Your task to perform on an android device: Show me productivity apps on the Play Store Image 0: 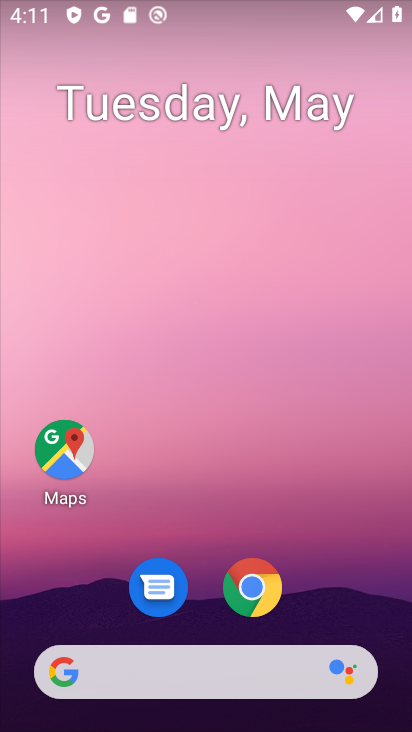
Step 0: drag from (381, 579) to (380, 272)
Your task to perform on an android device: Show me productivity apps on the Play Store Image 1: 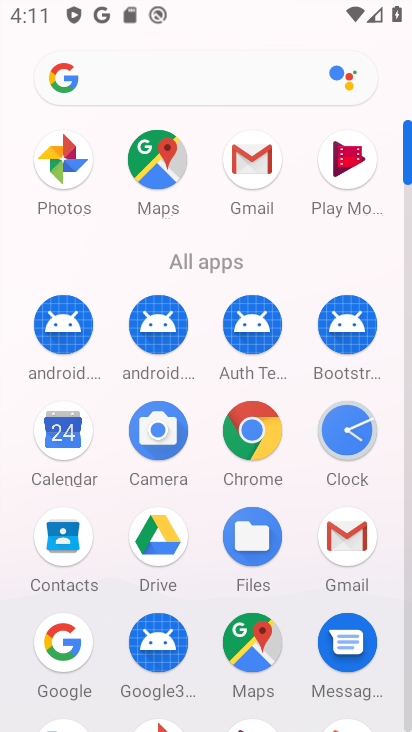
Step 1: drag from (389, 602) to (383, 346)
Your task to perform on an android device: Show me productivity apps on the Play Store Image 2: 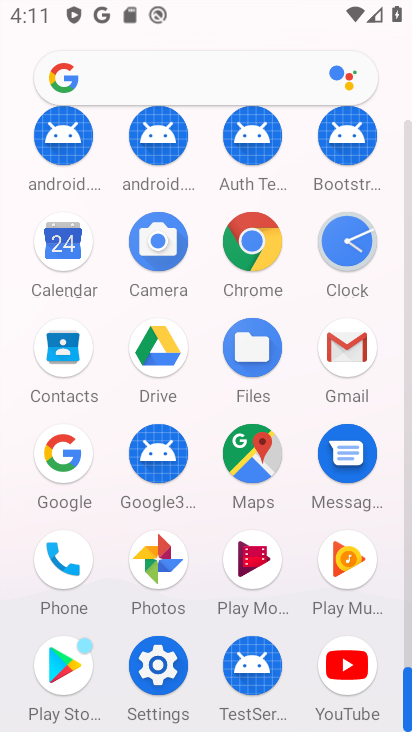
Step 2: click (57, 666)
Your task to perform on an android device: Show me productivity apps on the Play Store Image 3: 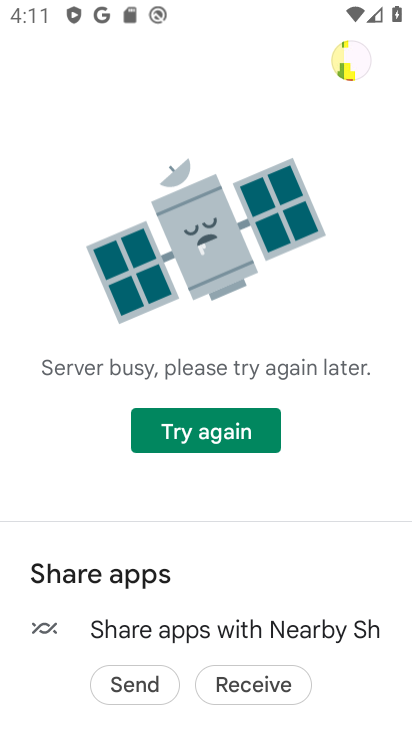
Step 3: task complete